Your task to perform on an android device: see sites visited before in the chrome app Image 0: 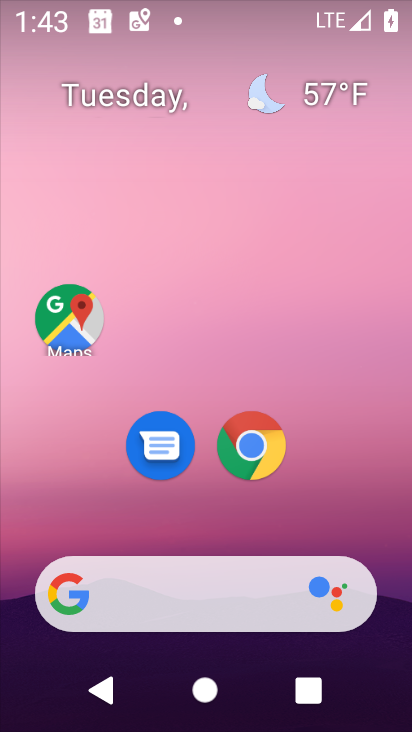
Step 0: drag from (340, 533) to (362, 186)
Your task to perform on an android device: see sites visited before in the chrome app Image 1: 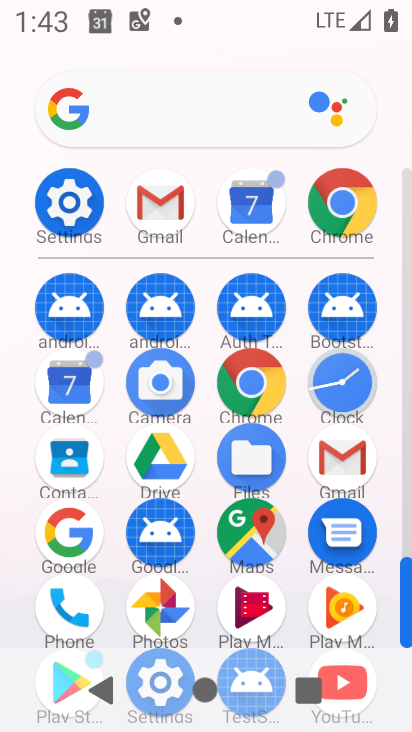
Step 1: click (255, 382)
Your task to perform on an android device: see sites visited before in the chrome app Image 2: 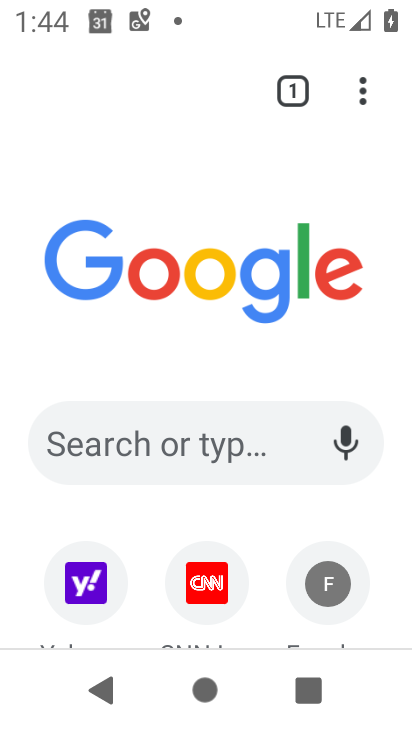
Step 2: click (366, 107)
Your task to perform on an android device: see sites visited before in the chrome app Image 3: 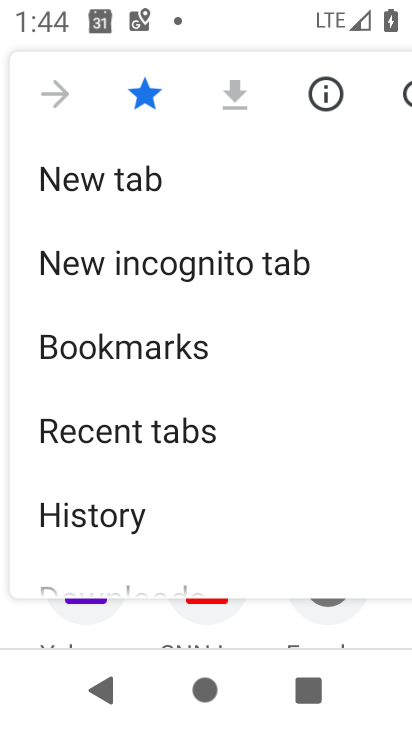
Step 3: drag from (345, 411) to (367, 296)
Your task to perform on an android device: see sites visited before in the chrome app Image 4: 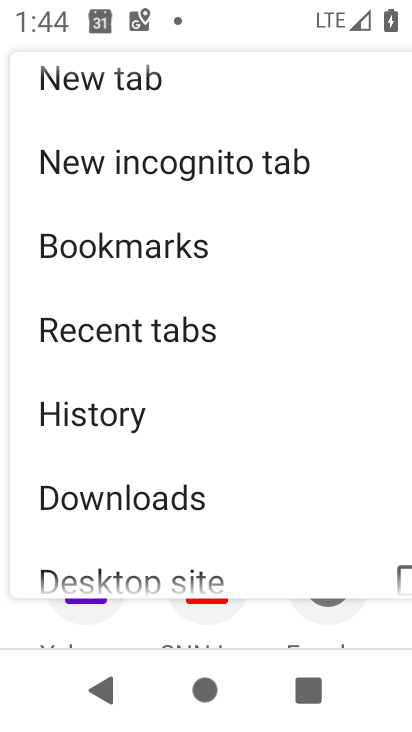
Step 4: drag from (345, 419) to (346, 260)
Your task to perform on an android device: see sites visited before in the chrome app Image 5: 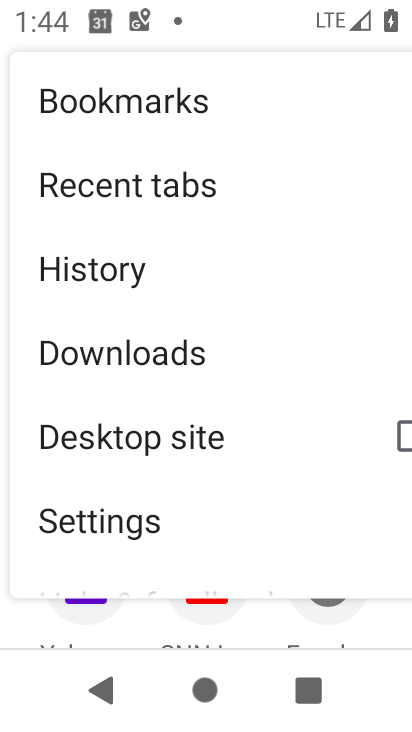
Step 5: drag from (337, 390) to (315, 249)
Your task to perform on an android device: see sites visited before in the chrome app Image 6: 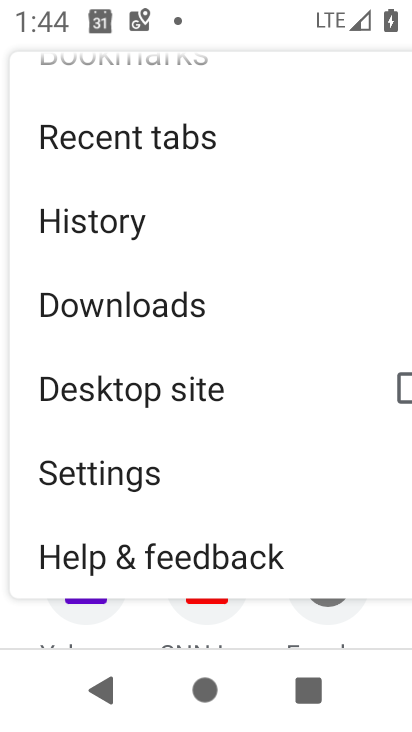
Step 6: drag from (310, 234) to (338, 368)
Your task to perform on an android device: see sites visited before in the chrome app Image 7: 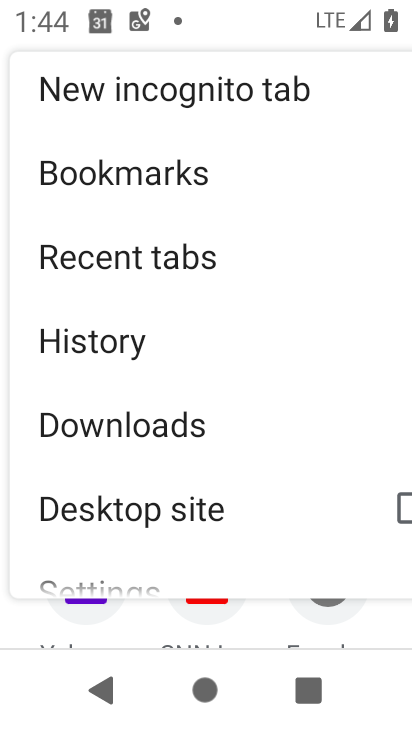
Step 7: click (224, 356)
Your task to perform on an android device: see sites visited before in the chrome app Image 8: 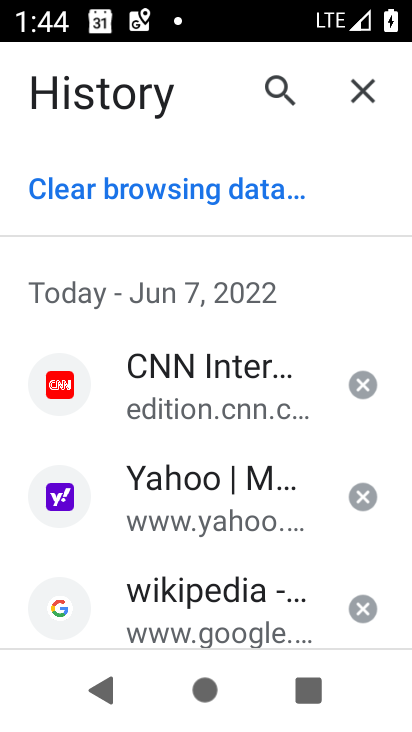
Step 8: task complete